Your task to perform on an android device: Open ESPN.com Image 0: 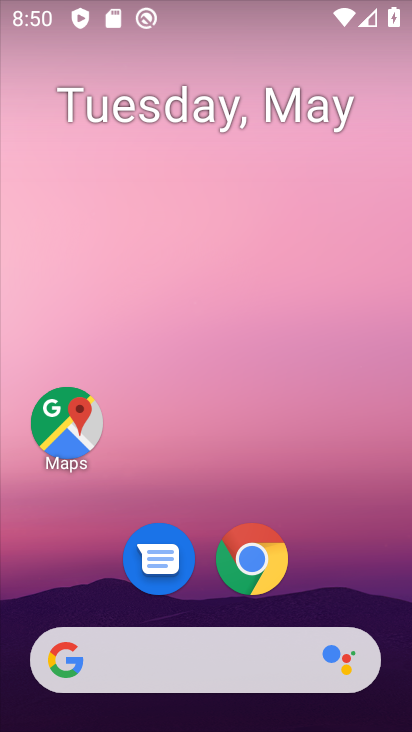
Step 0: drag from (296, 688) to (115, 17)
Your task to perform on an android device: Open ESPN.com Image 1: 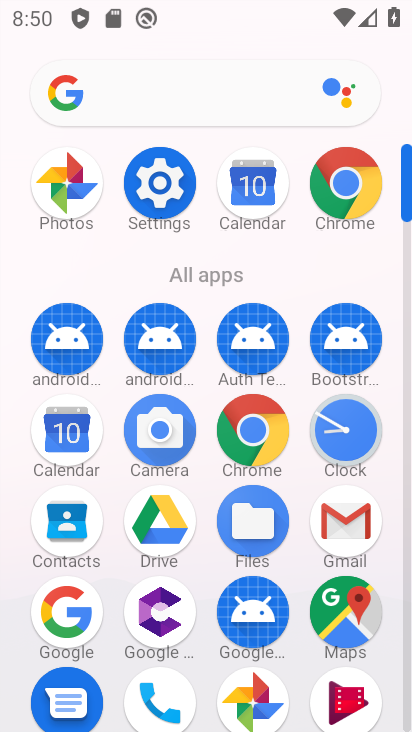
Step 1: click (339, 194)
Your task to perform on an android device: Open ESPN.com Image 2: 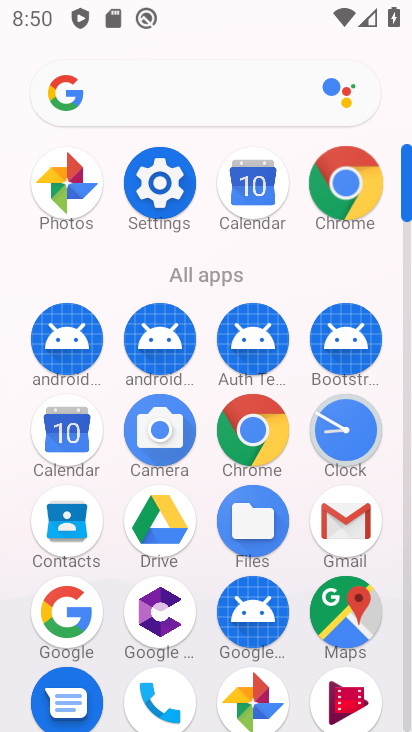
Step 2: click (339, 194)
Your task to perform on an android device: Open ESPN.com Image 3: 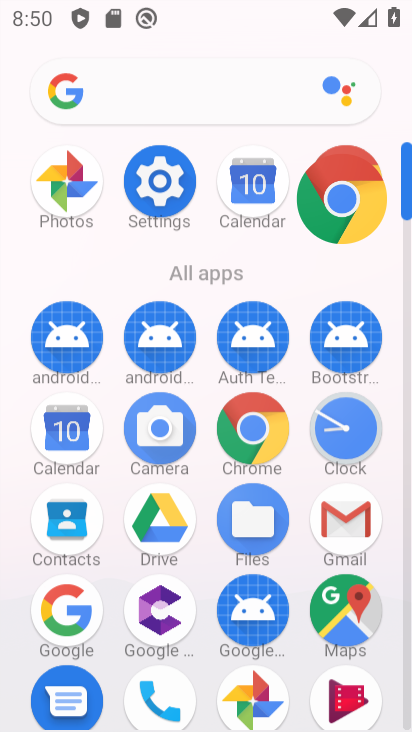
Step 3: click (339, 194)
Your task to perform on an android device: Open ESPN.com Image 4: 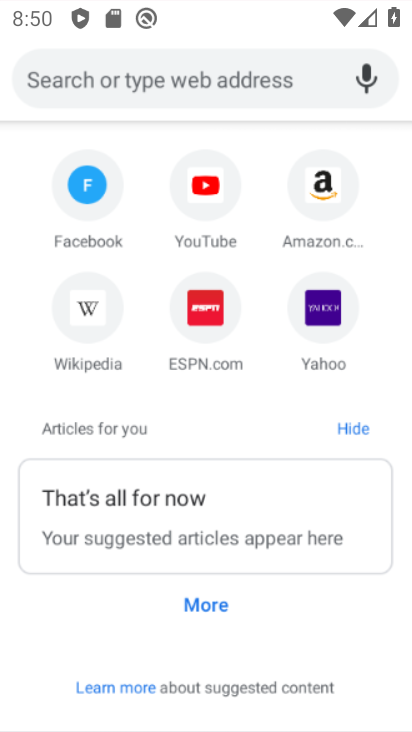
Step 4: click (342, 192)
Your task to perform on an android device: Open ESPN.com Image 5: 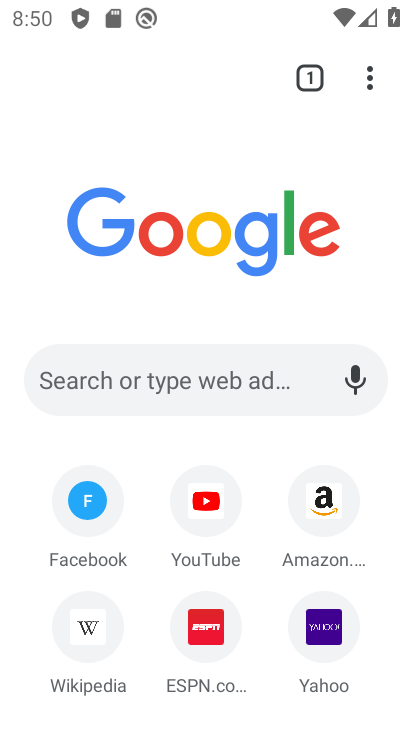
Step 5: click (95, 378)
Your task to perform on an android device: Open ESPN.com Image 6: 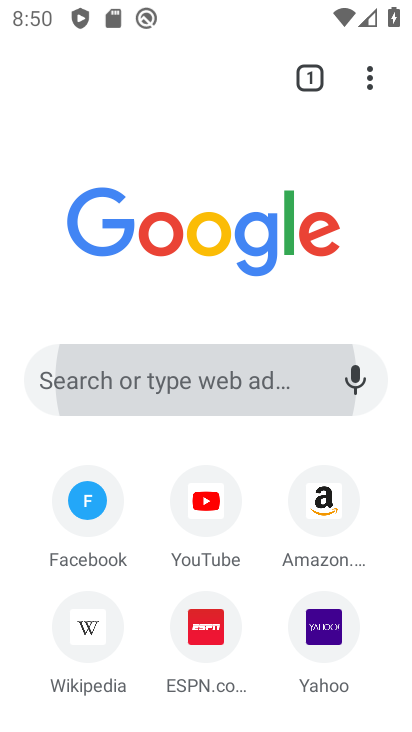
Step 6: click (89, 381)
Your task to perform on an android device: Open ESPN.com Image 7: 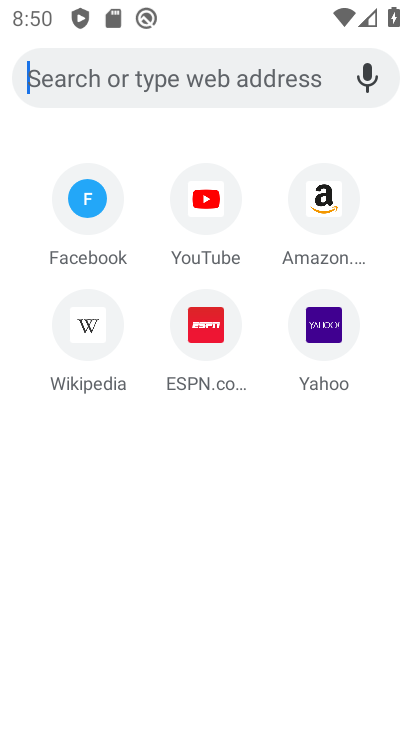
Step 7: click (88, 380)
Your task to perform on an android device: Open ESPN.com Image 8: 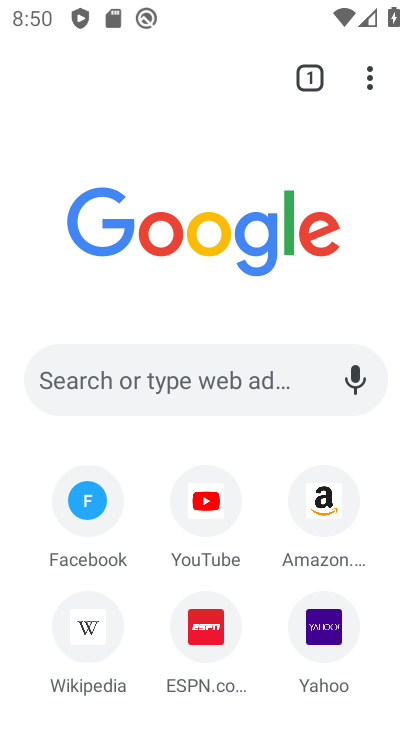
Step 8: click (204, 634)
Your task to perform on an android device: Open ESPN.com Image 9: 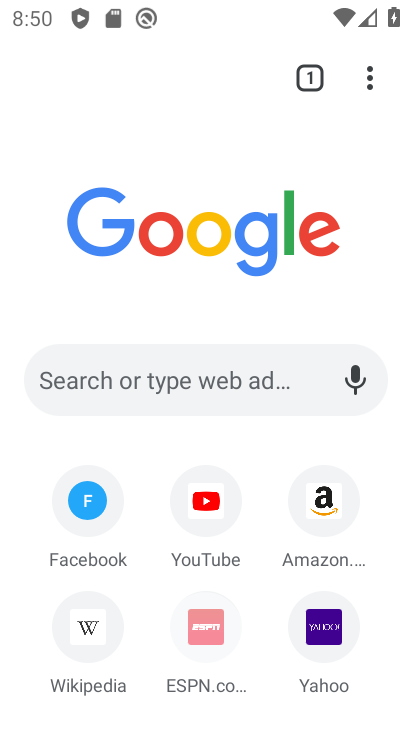
Step 9: click (202, 635)
Your task to perform on an android device: Open ESPN.com Image 10: 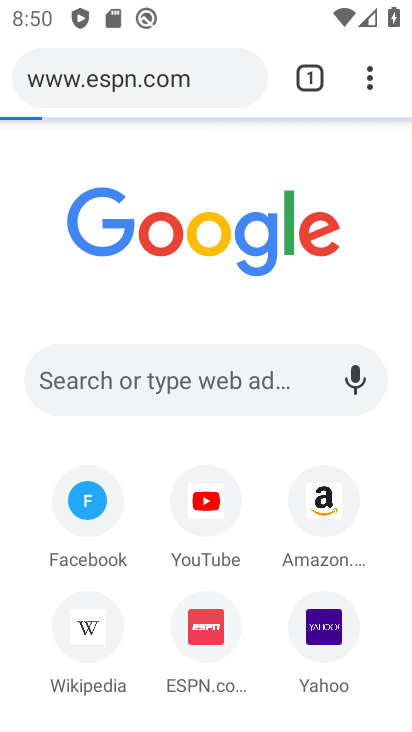
Step 10: click (202, 635)
Your task to perform on an android device: Open ESPN.com Image 11: 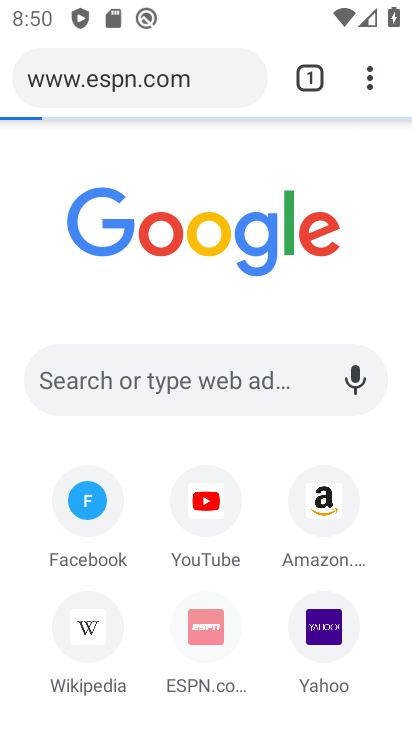
Step 11: click (204, 635)
Your task to perform on an android device: Open ESPN.com Image 12: 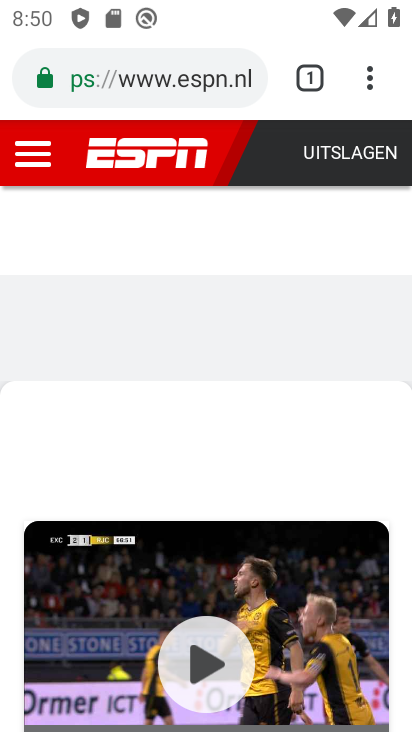
Step 12: drag from (245, 293) to (257, 72)
Your task to perform on an android device: Open ESPN.com Image 13: 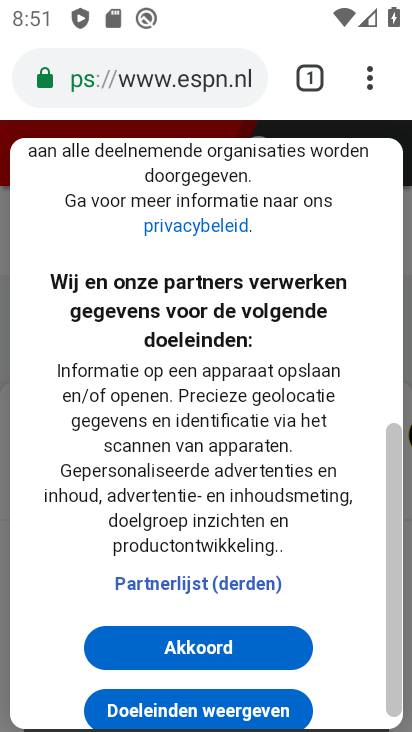
Step 13: press back button
Your task to perform on an android device: Open ESPN.com Image 14: 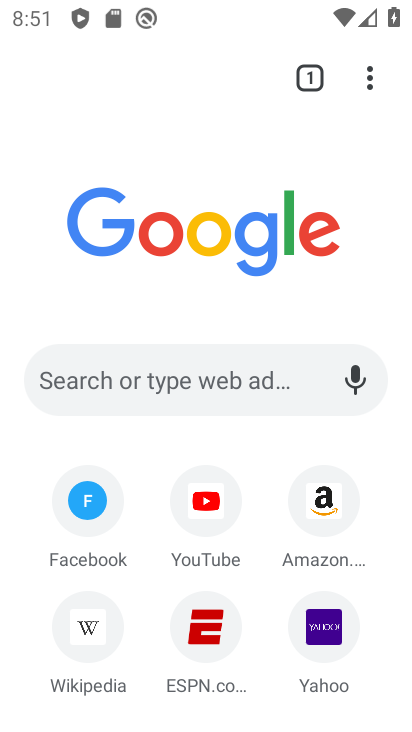
Step 14: click (210, 622)
Your task to perform on an android device: Open ESPN.com Image 15: 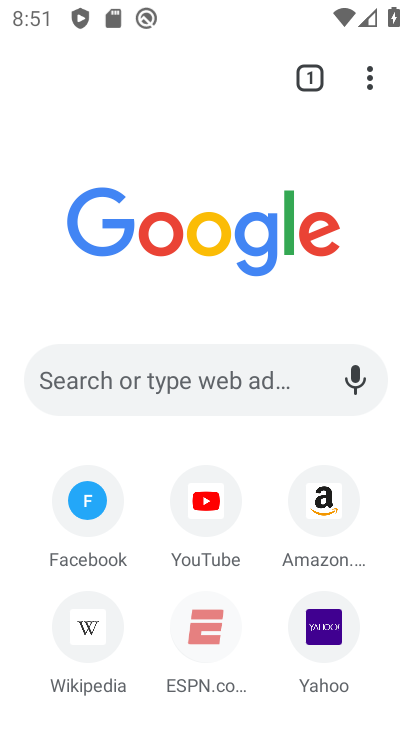
Step 15: click (208, 622)
Your task to perform on an android device: Open ESPN.com Image 16: 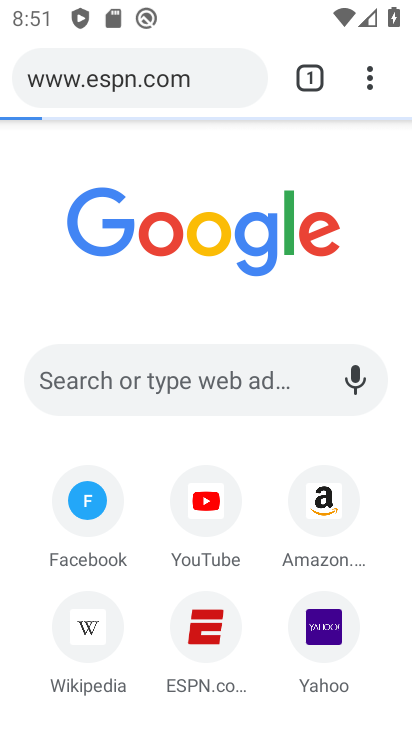
Step 16: click (208, 622)
Your task to perform on an android device: Open ESPN.com Image 17: 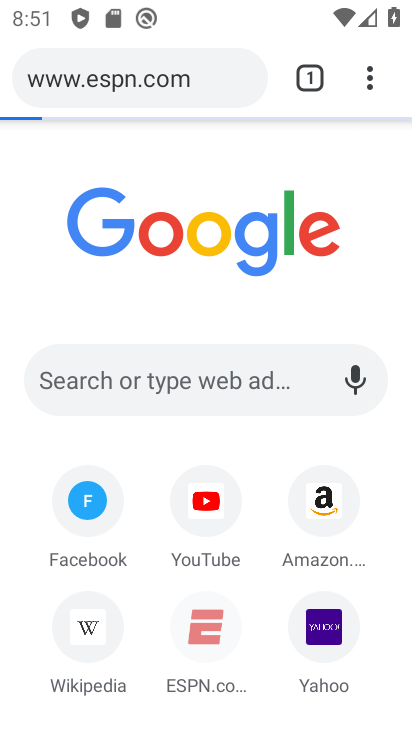
Step 17: click (201, 628)
Your task to perform on an android device: Open ESPN.com Image 18: 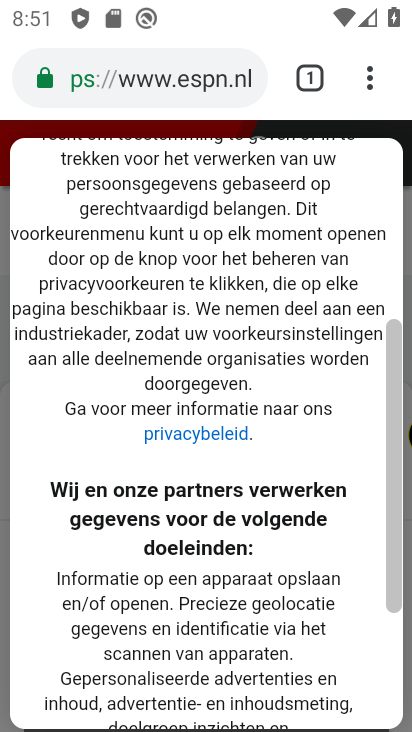
Step 18: task complete